Your task to perform on an android device: set the stopwatch Image 0: 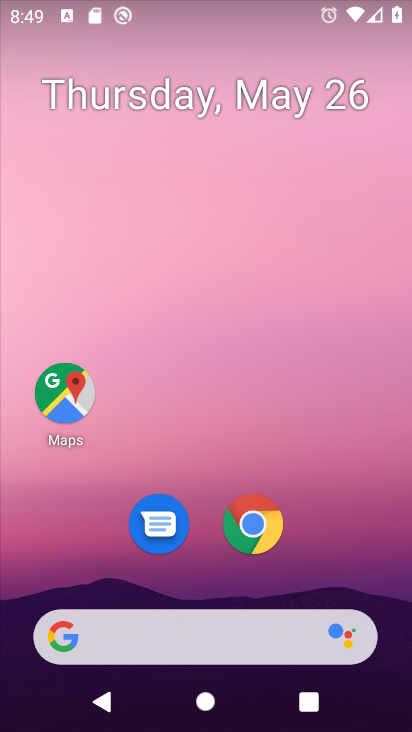
Step 0: drag from (208, 514) to (242, 6)
Your task to perform on an android device: set the stopwatch Image 1: 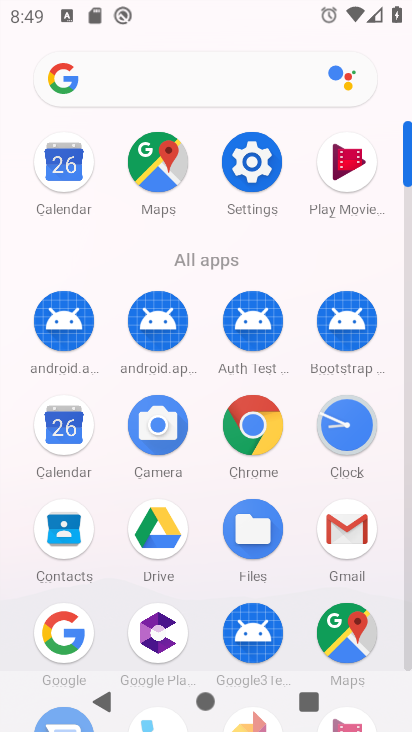
Step 1: click (355, 420)
Your task to perform on an android device: set the stopwatch Image 2: 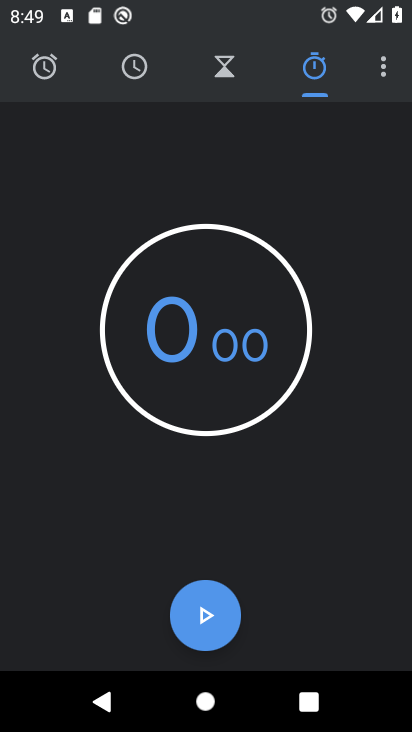
Step 2: task complete